Your task to perform on an android device: check google app version Image 0: 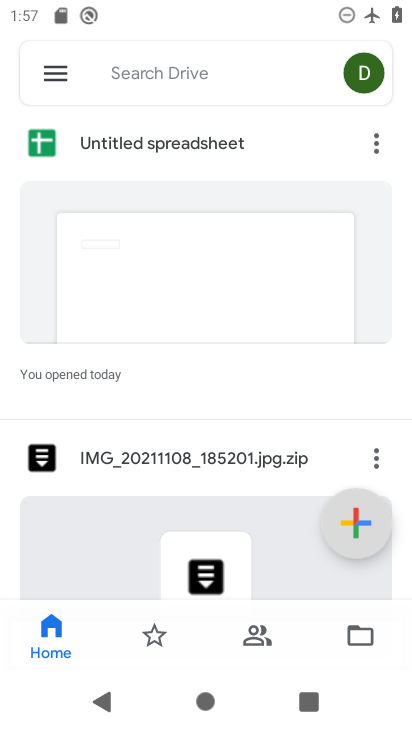
Step 0: press home button
Your task to perform on an android device: check google app version Image 1: 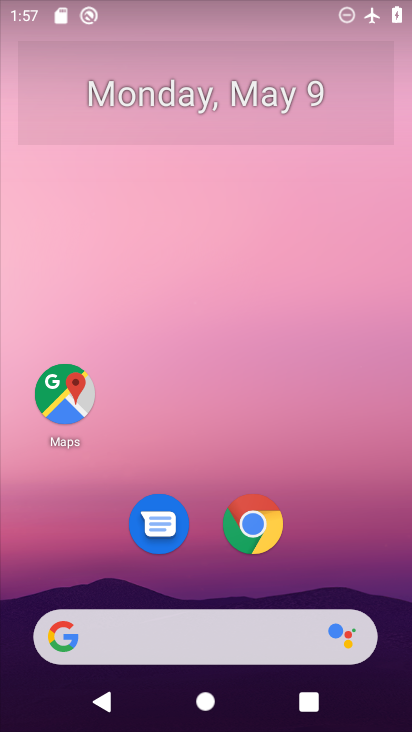
Step 1: drag from (199, 430) to (212, 0)
Your task to perform on an android device: check google app version Image 2: 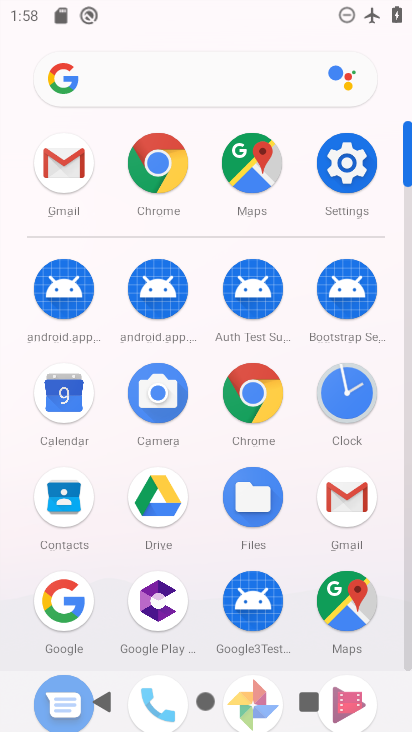
Step 2: click (344, 168)
Your task to perform on an android device: check google app version Image 3: 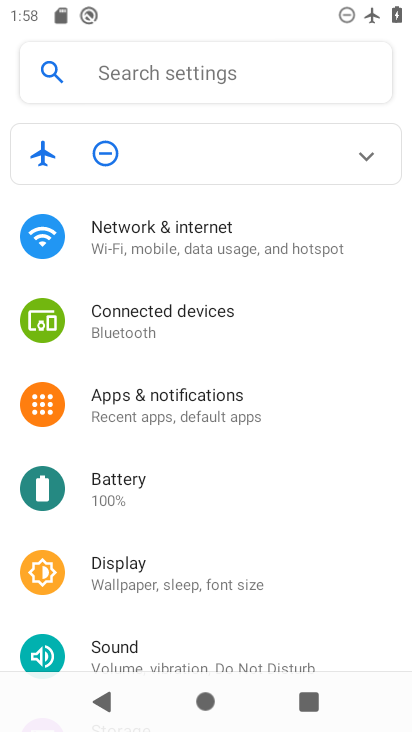
Step 3: click (275, 228)
Your task to perform on an android device: check google app version Image 4: 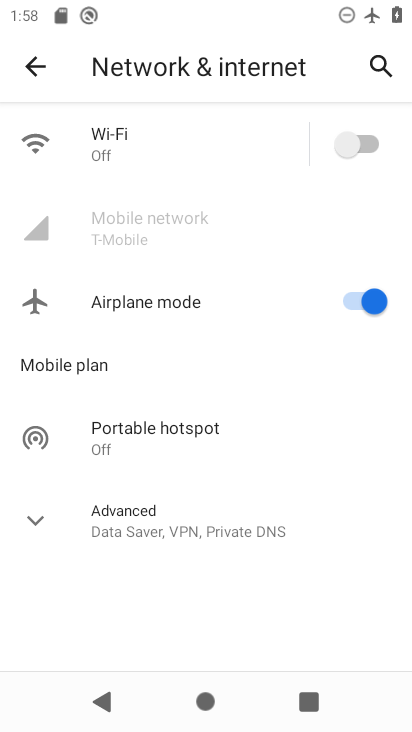
Step 4: click (363, 143)
Your task to perform on an android device: check google app version Image 5: 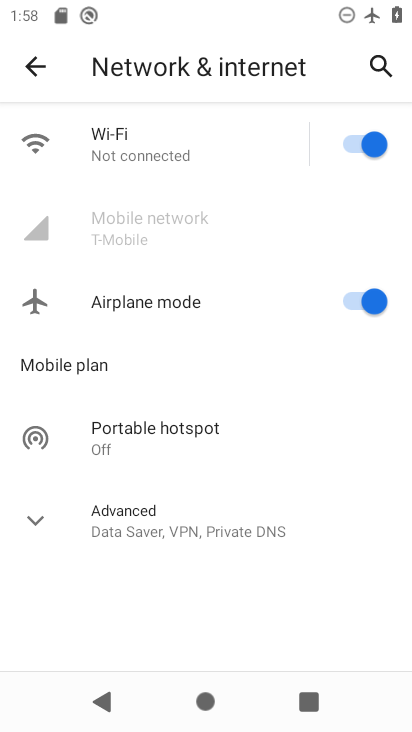
Step 5: click (357, 298)
Your task to perform on an android device: check google app version Image 6: 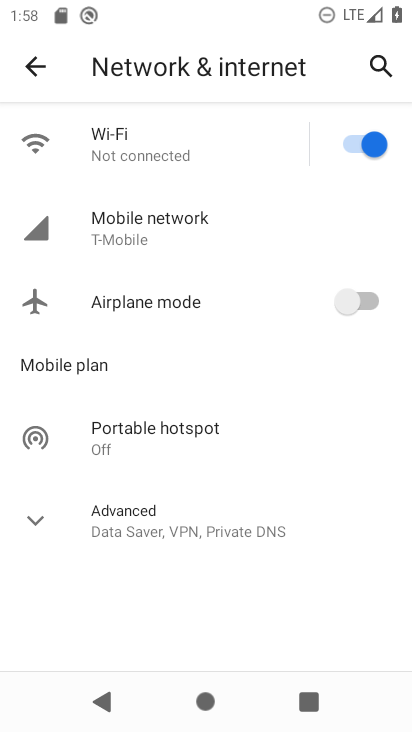
Step 6: click (41, 60)
Your task to perform on an android device: check google app version Image 7: 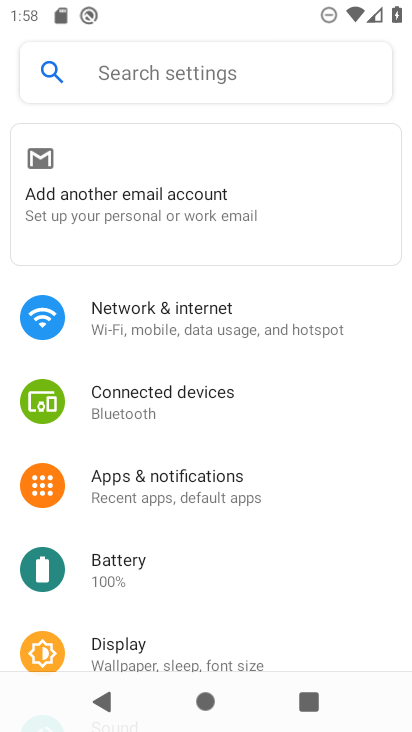
Step 7: press home button
Your task to perform on an android device: check google app version Image 8: 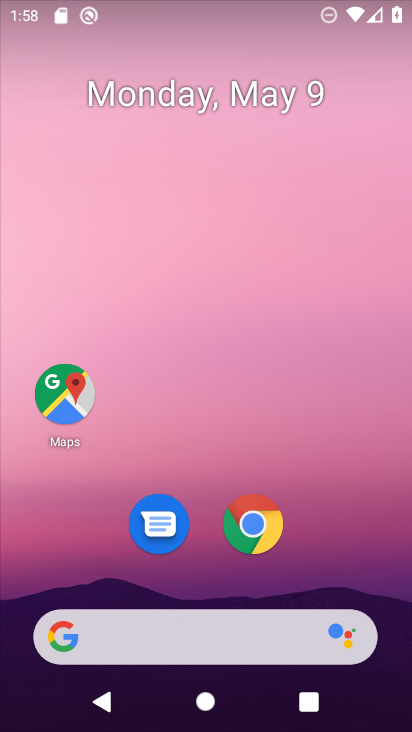
Step 8: drag from (223, 445) to (205, 30)
Your task to perform on an android device: check google app version Image 9: 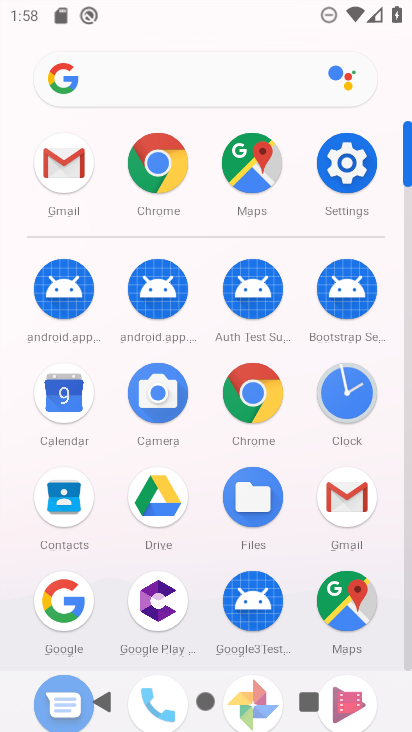
Step 9: click (74, 590)
Your task to perform on an android device: check google app version Image 10: 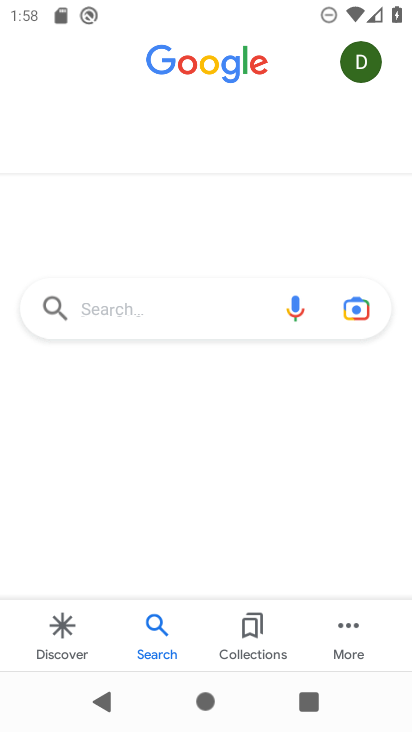
Step 10: click (349, 623)
Your task to perform on an android device: check google app version Image 11: 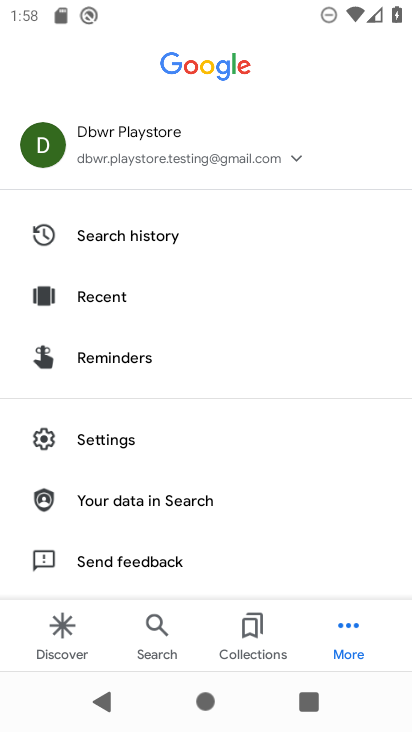
Step 11: click (116, 439)
Your task to perform on an android device: check google app version Image 12: 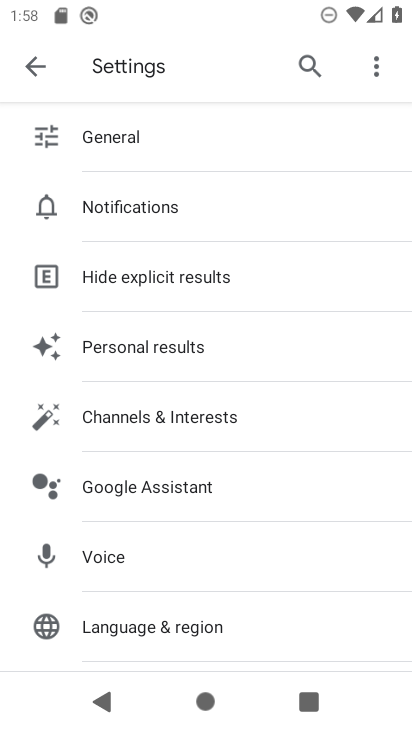
Step 12: drag from (230, 585) to (240, 263)
Your task to perform on an android device: check google app version Image 13: 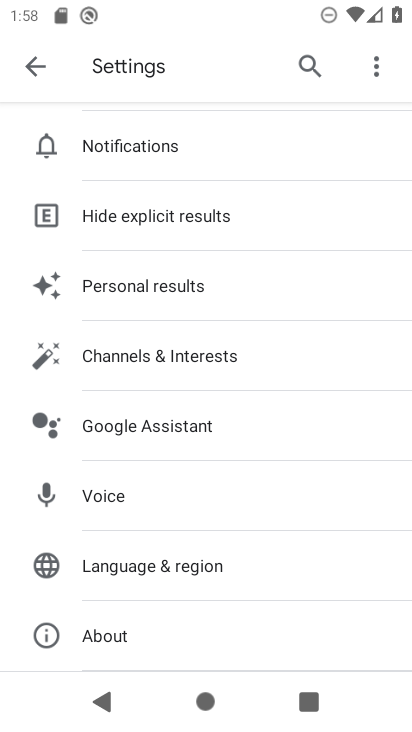
Step 13: click (103, 629)
Your task to perform on an android device: check google app version Image 14: 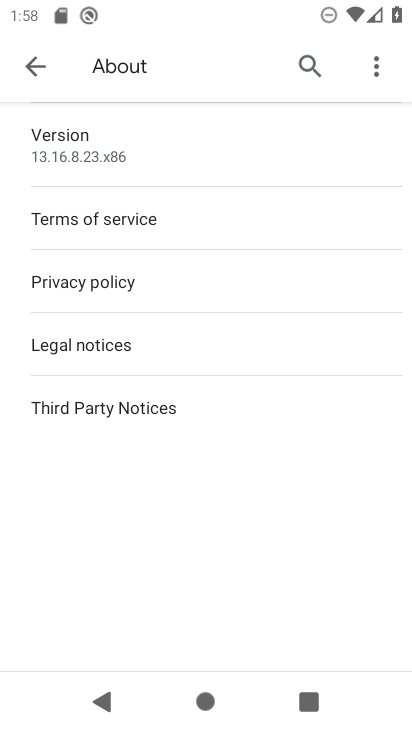
Step 14: task complete